Your task to perform on an android device: Search for pizza restaurants on Maps Image 0: 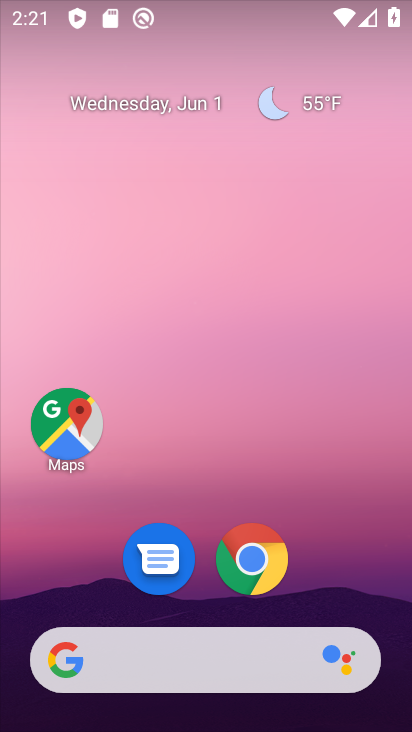
Step 0: drag from (381, 603) to (282, 74)
Your task to perform on an android device: Search for pizza restaurants on Maps Image 1: 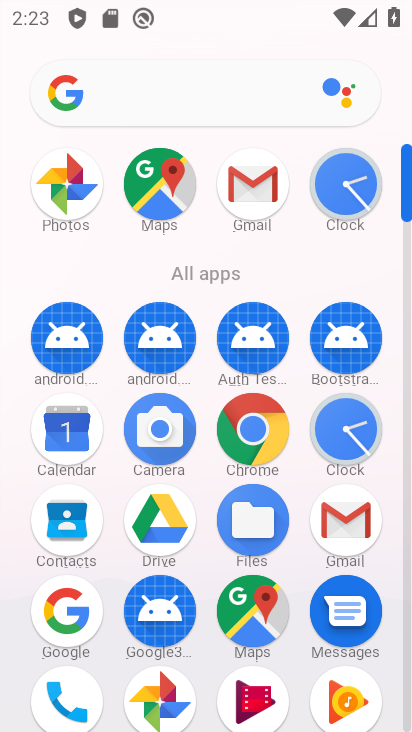
Step 1: task complete